Your task to perform on an android device: toggle priority inbox in the gmail app Image 0: 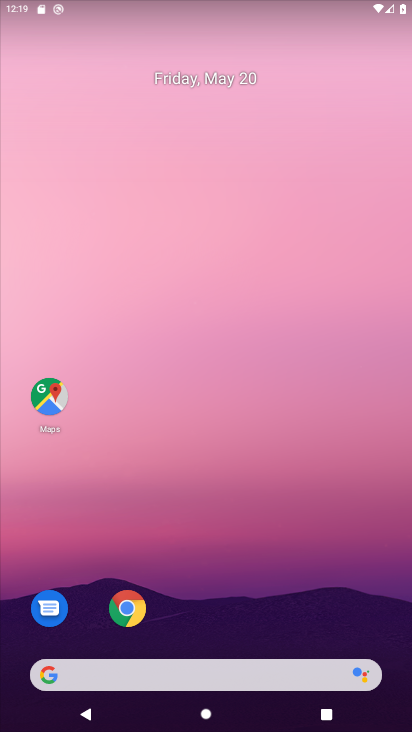
Step 0: drag from (279, 624) to (229, 79)
Your task to perform on an android device: toggle priority inbox in the gmail app Image 1: 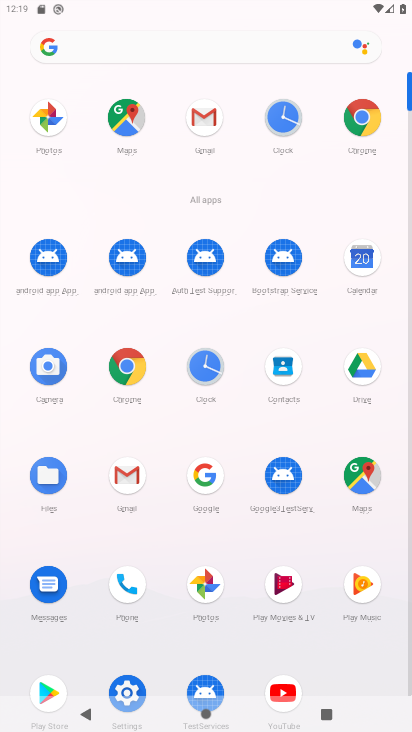
Step 1: click (211, 132)
Your task to perform on an android device: toggle priority inbox in the gmail app Image 2: 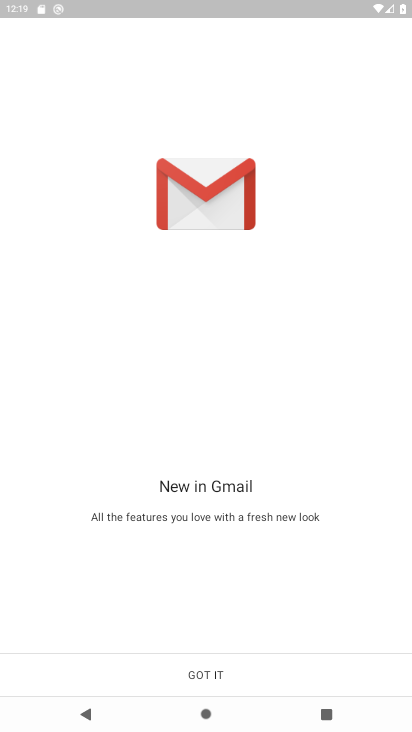
Step 2: click (189, 669)
Your task to perform on an android device: toggle priority inbox in the gmail app Image 3: 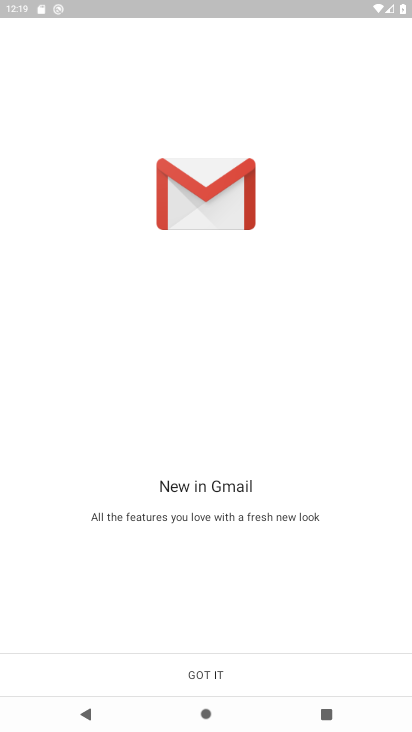
Step 3: click (189, 669)
Your task to perform on an android device: toggle priority inbox in the gmail app Image 4: 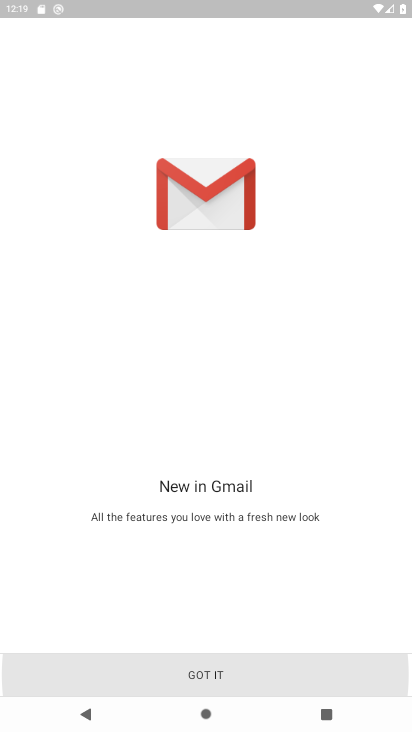
Step 4: click (189, 669)
Your task to perform on an android device: toggle priority inbox in the gmail app Image 5: 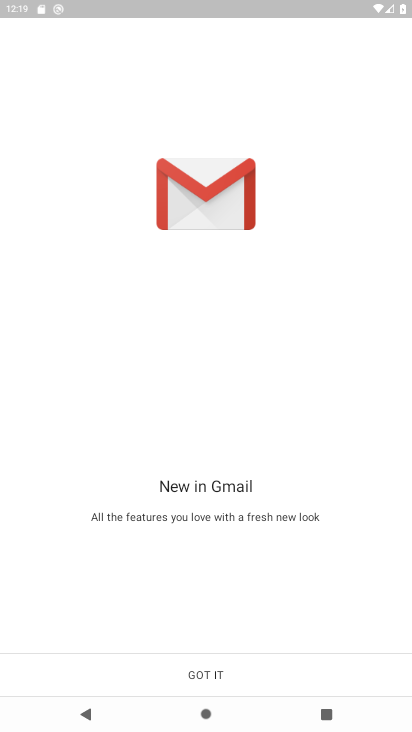
Step 5: click (189, 669)
Your task to perform on an android device: toggle priority inbox in the gmail app Image 6: 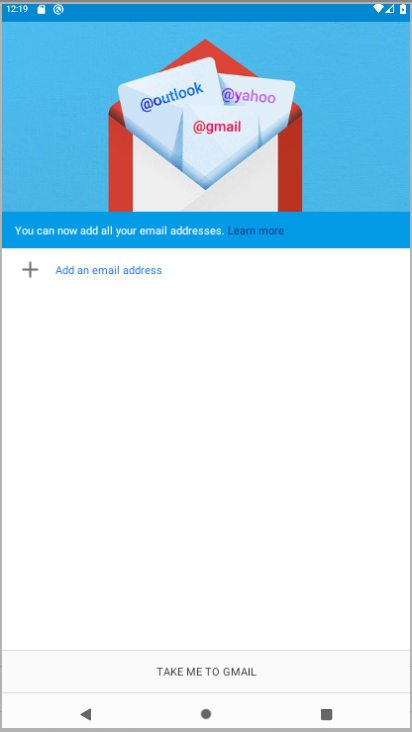
Step 6: click (189, 669)
Your task to perform on an android device: toggle priority inbox in the gmail app Image 7: 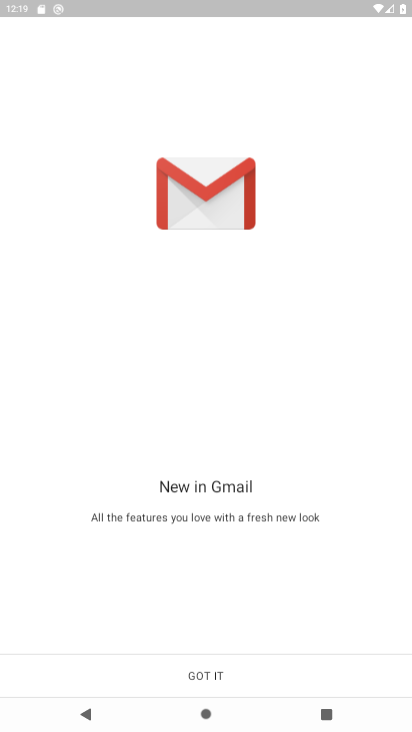
Step 7: click (187, 667)
Your task to perform on an android device: toggle priority inbox in the gmail app Image 8: 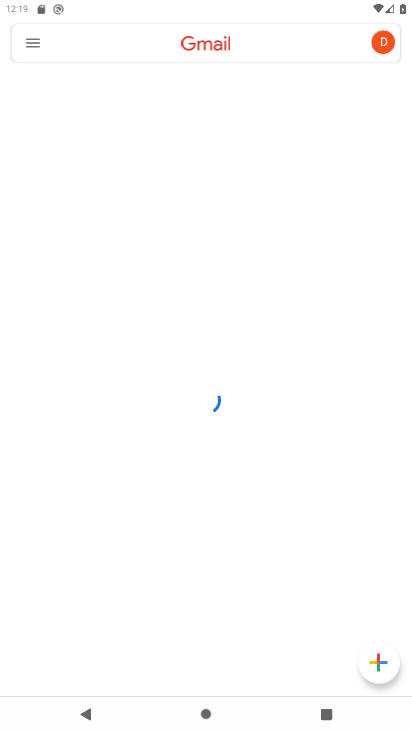
Step 8: click (26, 39)
Your task to perform on an android device: toggle priority inbox in the gmail app Image 9: 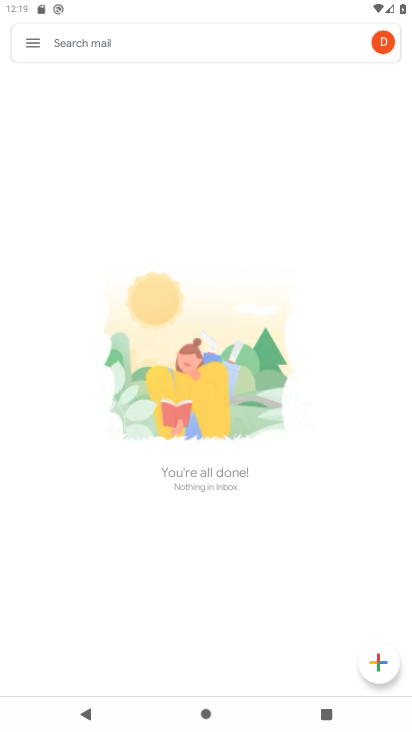
Step 9: click (26, 39)
Your task to perform on an android device: toggle priority inbox in the gmail app Image 10: 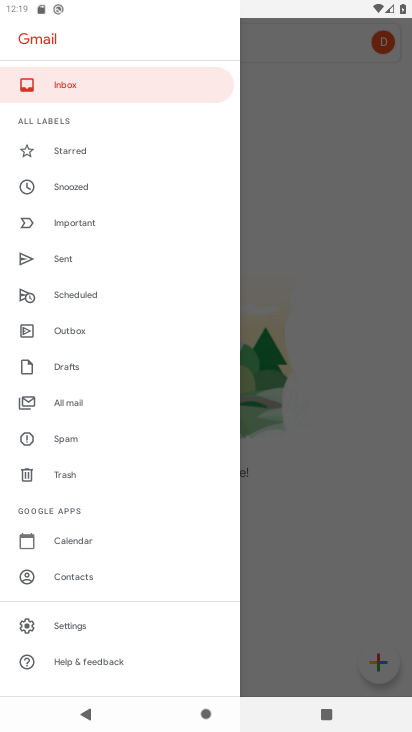
Step 10: click (38, 630)
Your task to perform on an android device: toggle priority inbox in the gmail app Image 11: 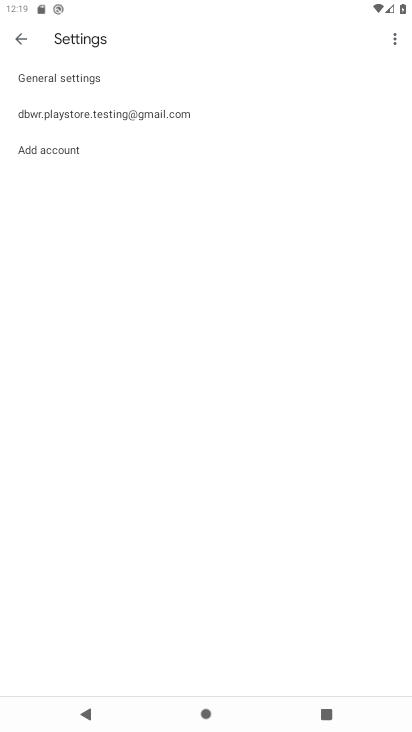
Step 11: click (107, 109)
Your task to perform on an android device: toggle priority inbox in the gmail app Image 12: 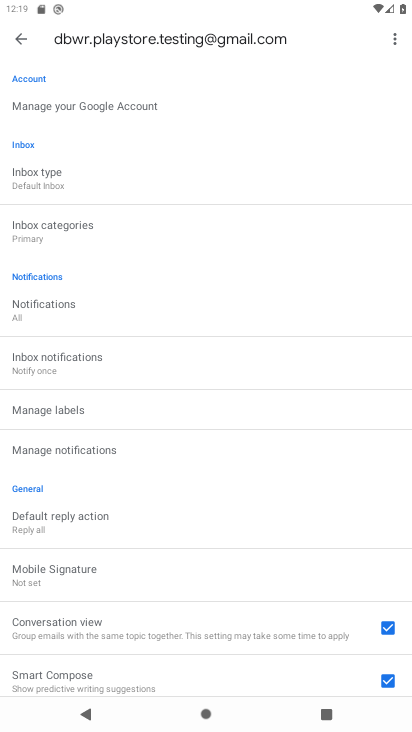
Step 12: click (65, 184)
Your task to perform on an android device: toggle priority inbox in the gmail app Image 13: 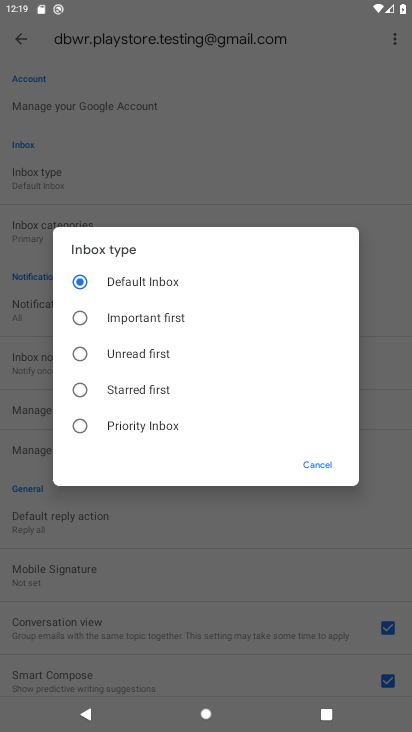
Step 13: click (150, 413)
Your task to perform on an android device: toggle priority inbox in the gmail app Image 14: 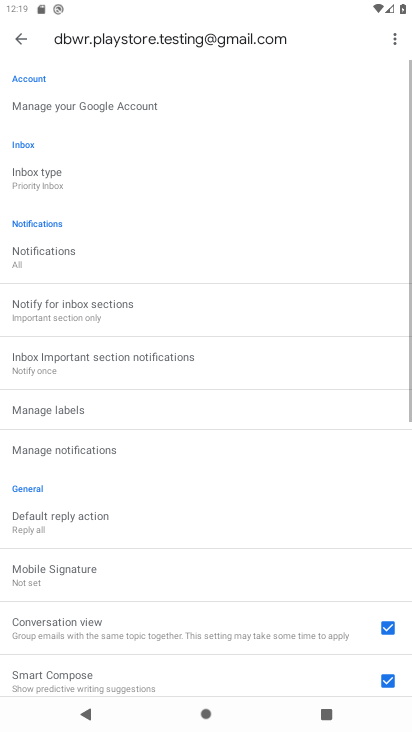
Step 14: task complete